Your task to perform on an android device: change your default location settings in chrome Image 0: 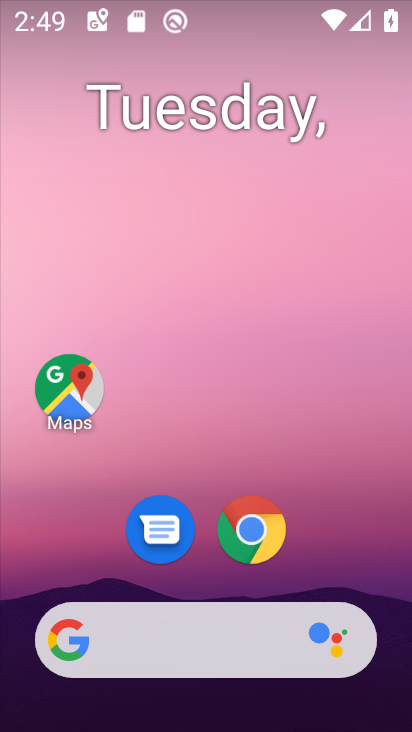
Step 0: click (251, 522)
Your task to perform on an android device: change your default location settings in chrome Image 1: 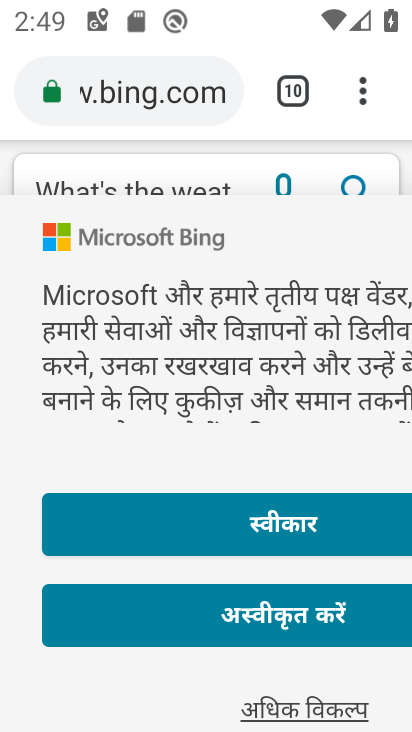
Step 1: click (362, 92)
Your task to perform on an android device: change your default location settings in chrome Image 2: 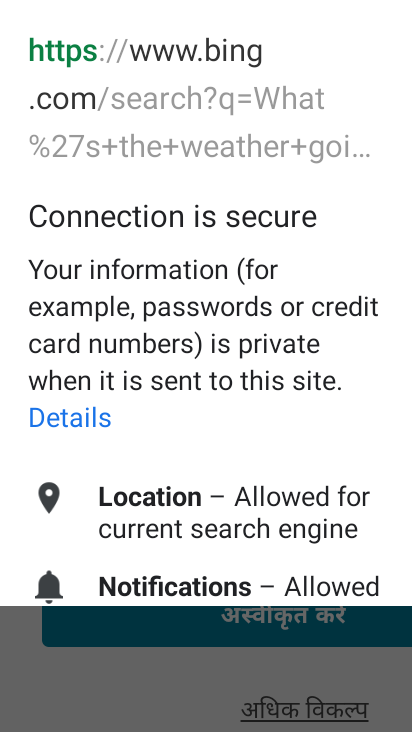
Step 2: press back button
Your task to perform on an android device: change your default location settings in chrome Image 3: 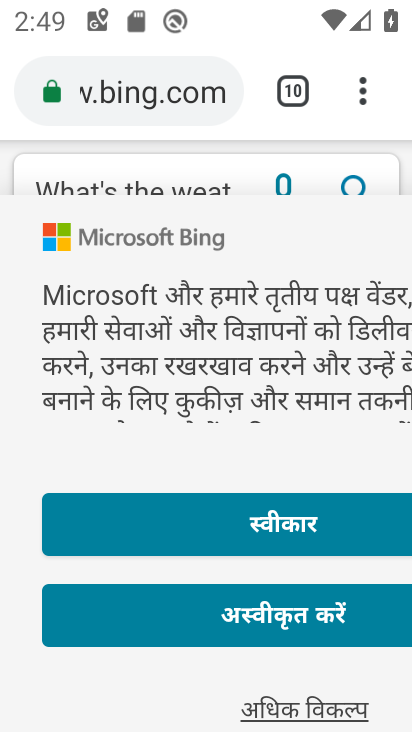
Step 3: click (372, 86)
Your task to perform on an android device: change your default location settings in chrome Image 4: 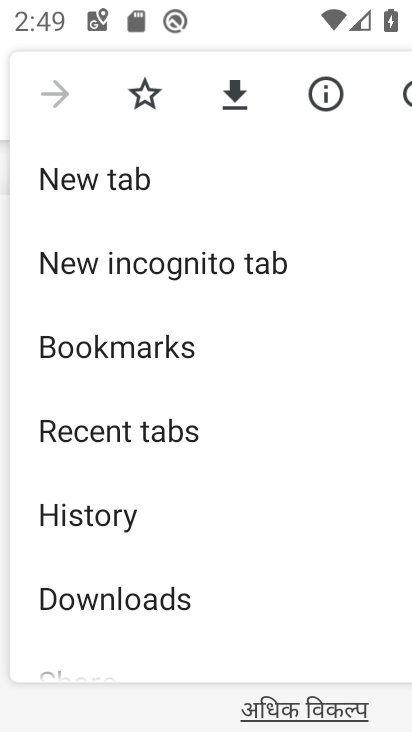
Step 4: drag from (202, 568) to (208, 263)
Your task to perform on an android device: change your default location settings in chrome Image 5: 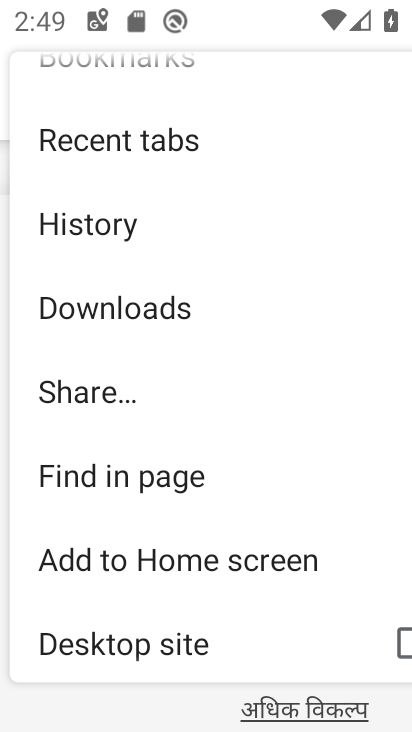
Step 5: drag from (117, 627) to (191, 219)
Your task to perform on an android device: change your default location settings in chrome Image 6: 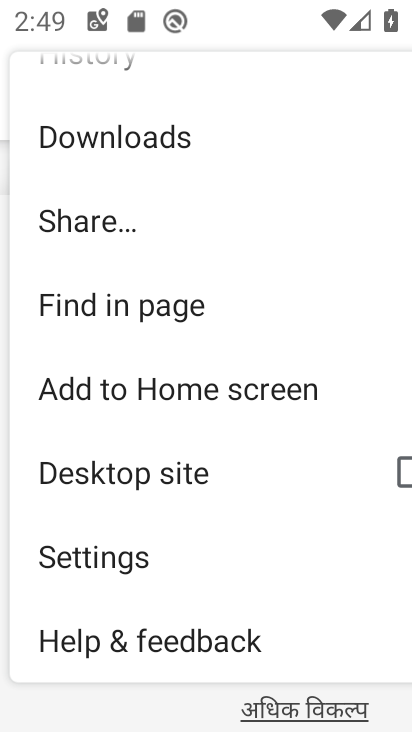
Step 6: click (77, 560)
Your task to perform on an android device: change your default location settings in chrome Image 7: 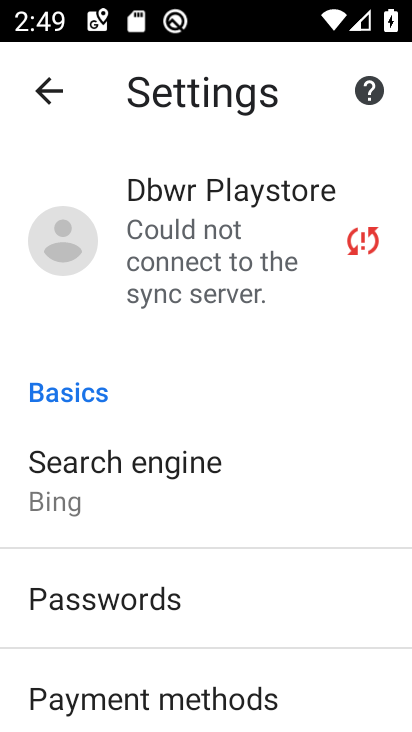
Step 7: drag from (215, 639) to (217, 322)
Your task to perform on an android device: change your default location settings in chrome Image 8: 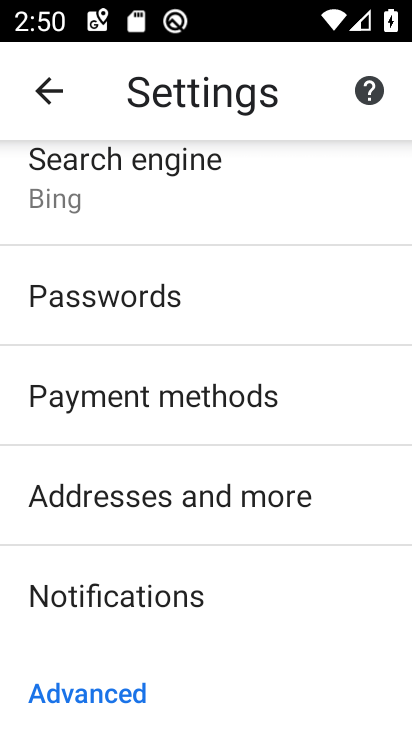
Step 8: drag from (155, 579) to (208, 239)
Your task to perform on an android device: change your default location settings in chrome Image 9: 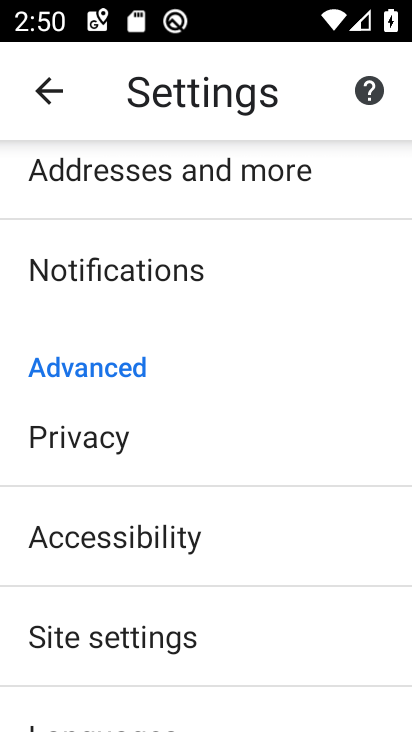
Step 9: click (153, 627)
Your task to perform on an android device: change your default location settings in chrome Image 10: 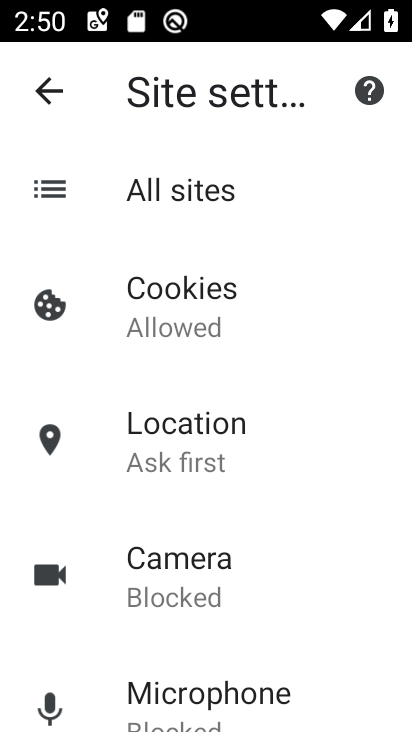
Step 10: drag from (208, 612) to (236, 397)
Your task to perform on an android device: change your default location settings in chrome Image 11: 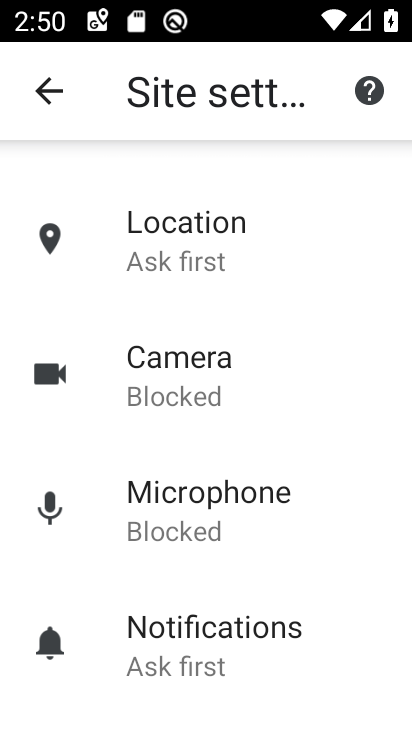
Step 11: click (171, 230)
Your task to perform on an android device: change your default location settings in chrome Image 12: 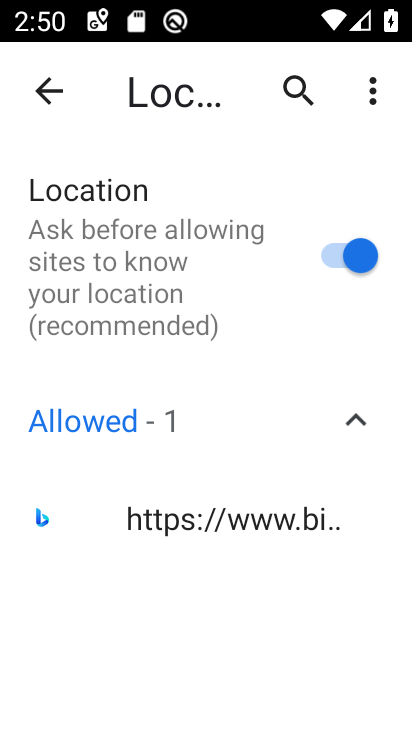
Step 12: click (350, 246)
Your task to perform on an android device: change your default location settings in chrome Image 13: 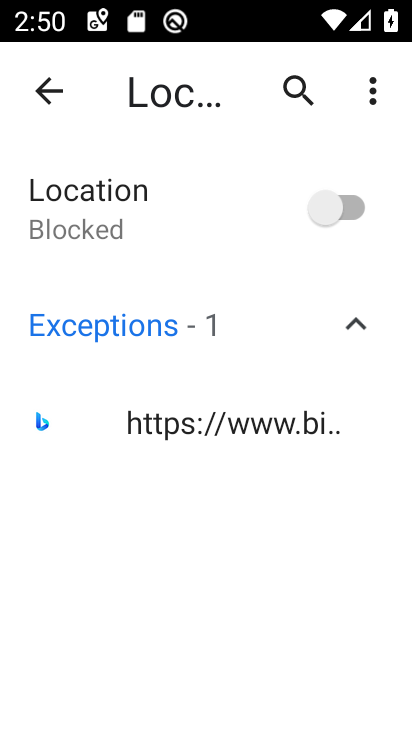
Step 13: task complete